Your task to perform on an android device: Open the phone app and click the voicemail tab. Image 0: 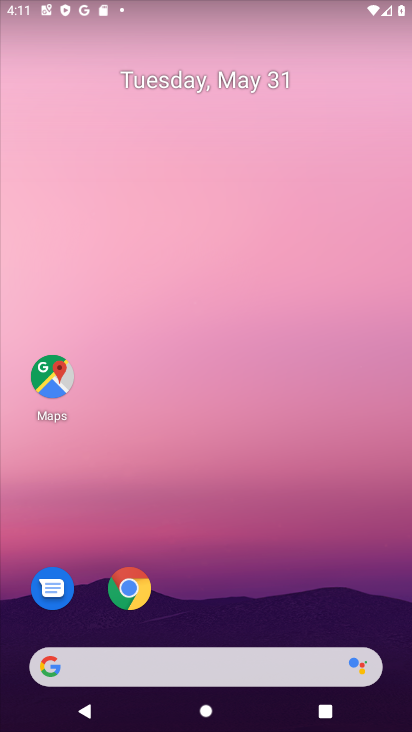
Step 0: drag from (205, 625) to (194, 188)
Your task to perform on an android device: Open the phone app and click the voicemail tab. Image 1: 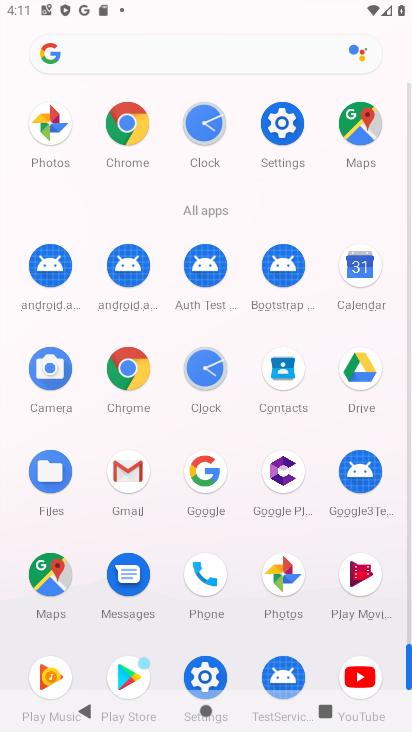
Step 1: click (211, 580)
Your task to perform on an android device: Open the phone app and click the voicemail tab. Image 2: 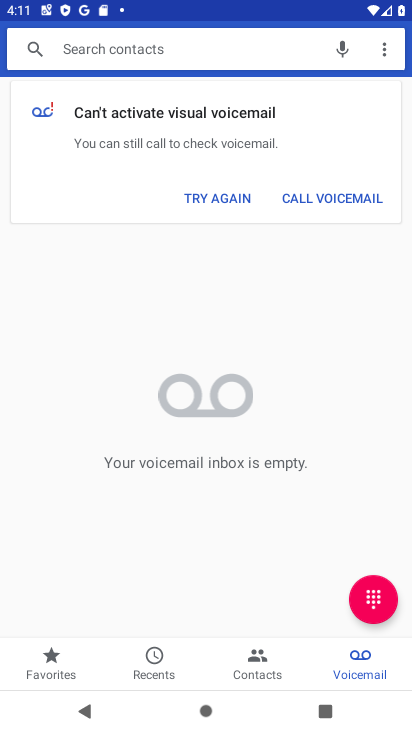
Step 2: task complete